Your task to perform on an android device: What's on my calendar tomorrow? Image 0: 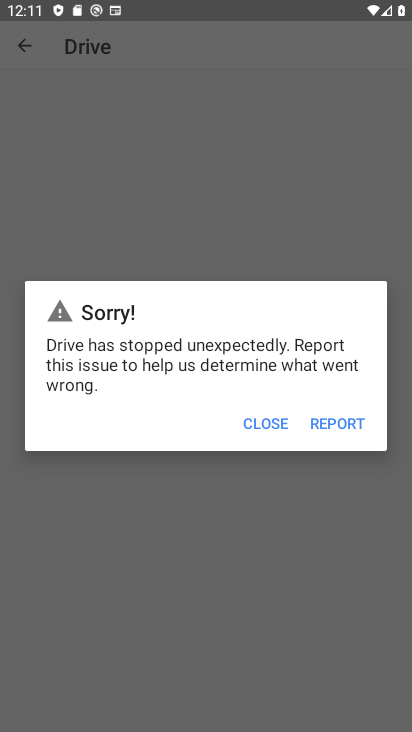
Step 0: press home button
Your task to perform on an android device: What's on my calendar tomorrow? Image 1: 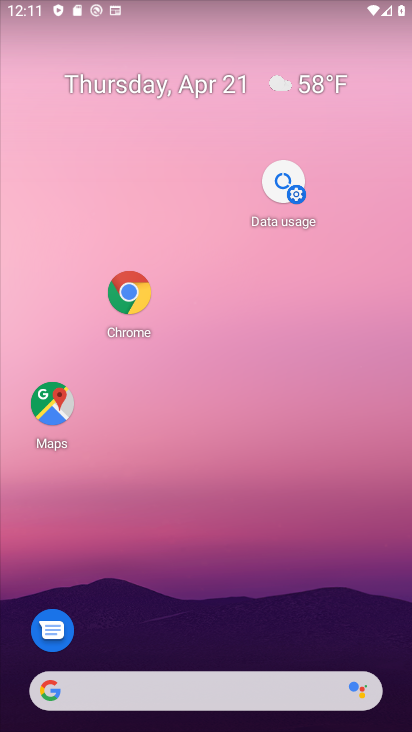
Step 1: drag from (200, 575) to (200, 290)
Your task to perform on an android device: What's on my calendar tomorrow? Image 2: 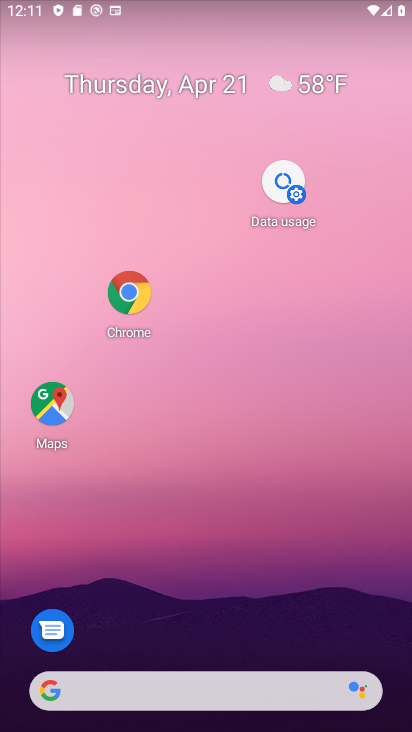
Step 2: drag from (196, 666) to (191, 139)
Your task to perform on an android device: What's on my calendar tomorrow? Image 3: 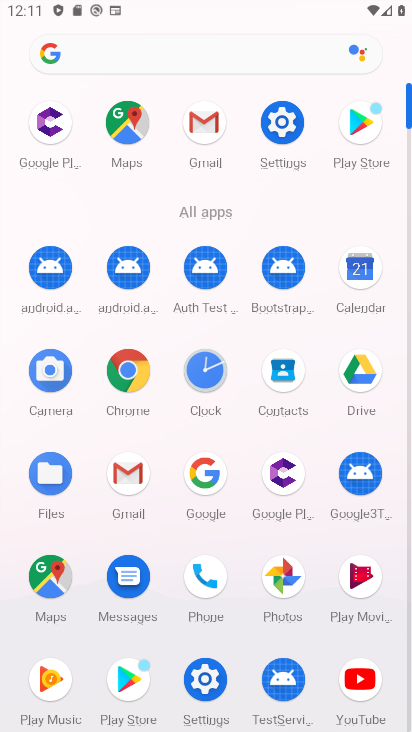
Step 3: click (360, 266)
Your task to perform on an android device: What's on my calendar tomorrow? Image 4: 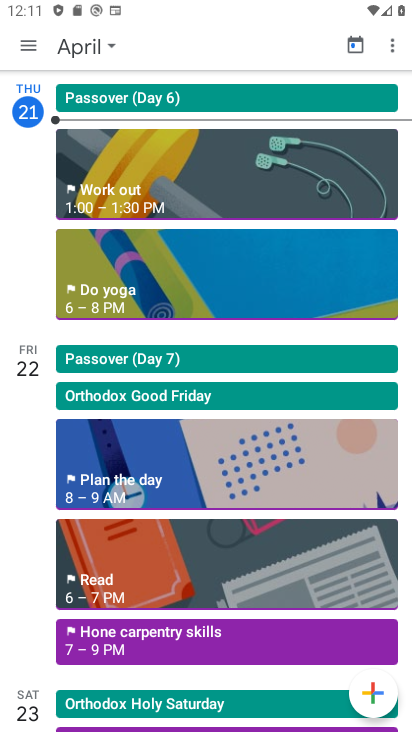
Step 4: click (76, 40)
Your task to perform on an android device: What's on my calendar tomorrow? Image 5: 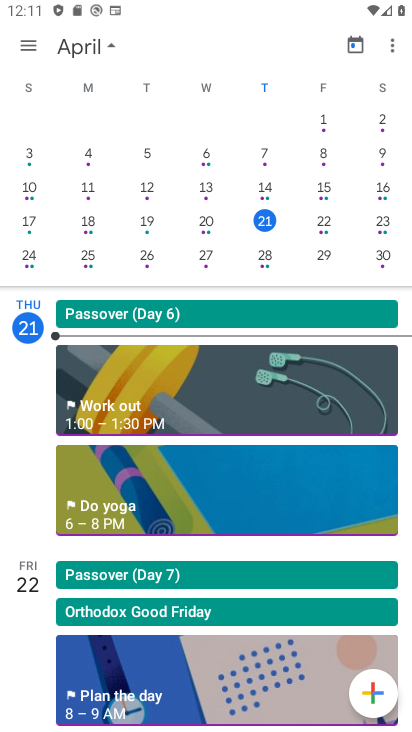
Step 5: click (325, 227)
Your task to perform on an android device: What's on my calendar tomorrow? Image 6: 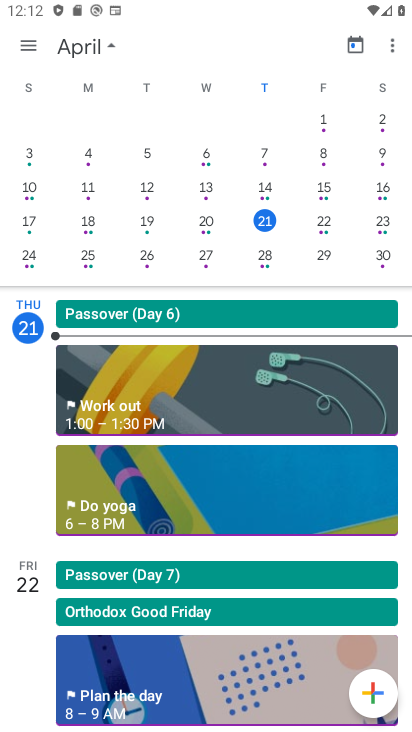
Step 6: click (322, 225)
Your task to perform on an android device: What's on my calendar tomorrow? Image 7: 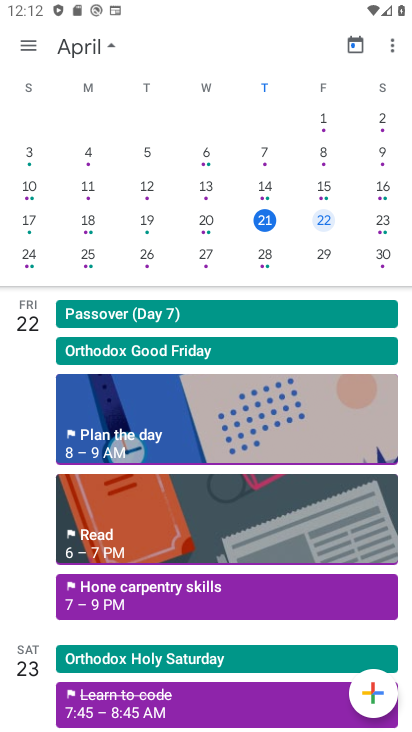
Step 7: task complete